Your task to perform on an android device: open app "McDonald's" Image 0: 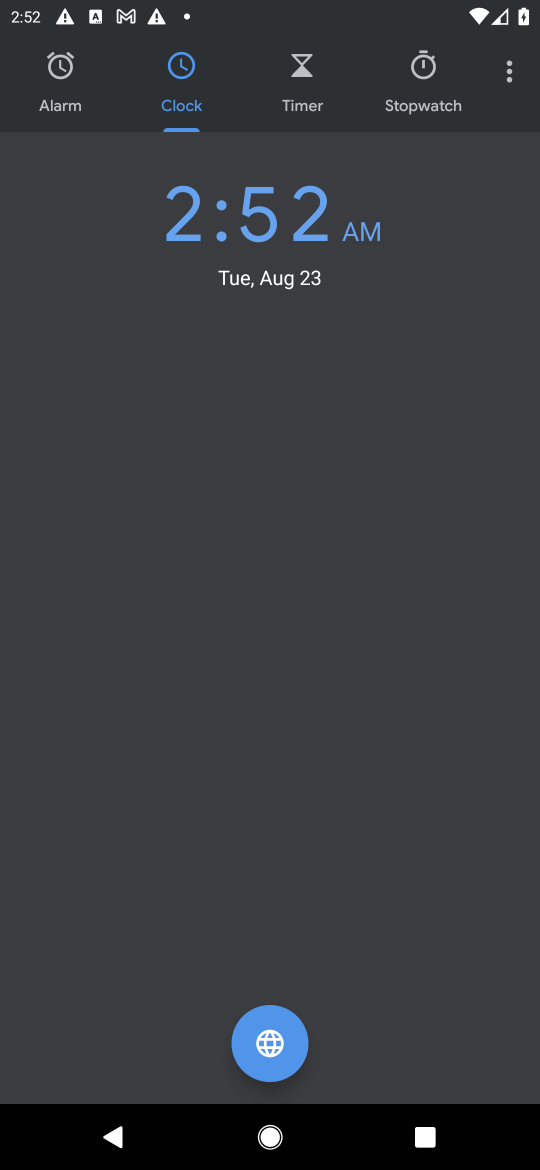
Step 0: press home button
Your task to perform on an android device: open app "McDonald's" Image 1: 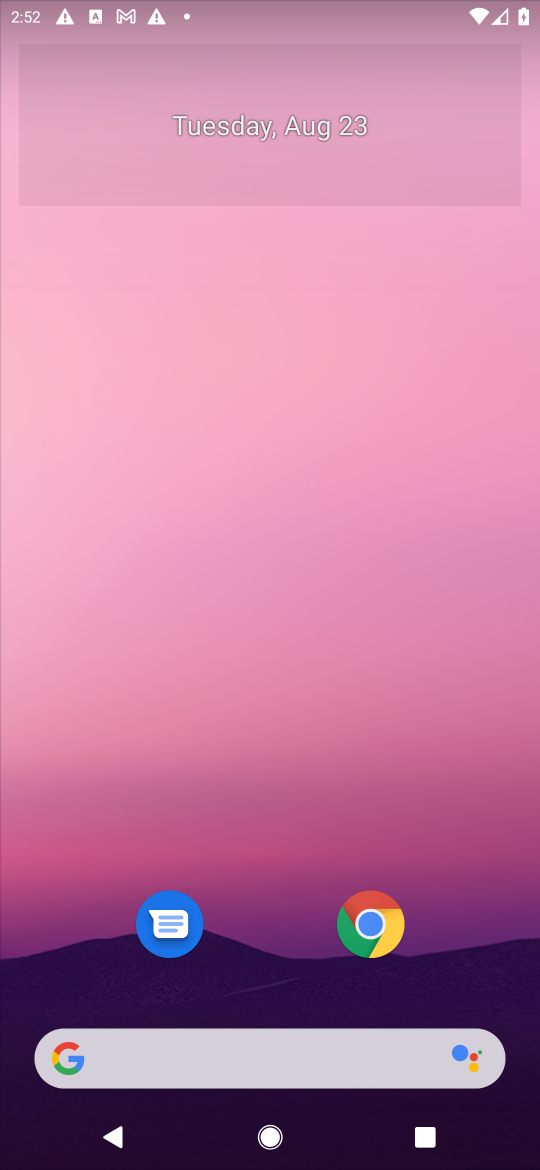
Step 1: drag from (447, 730) to (430, 85)
Your task to perform on an android device: open app "McDonald's" Image 2: 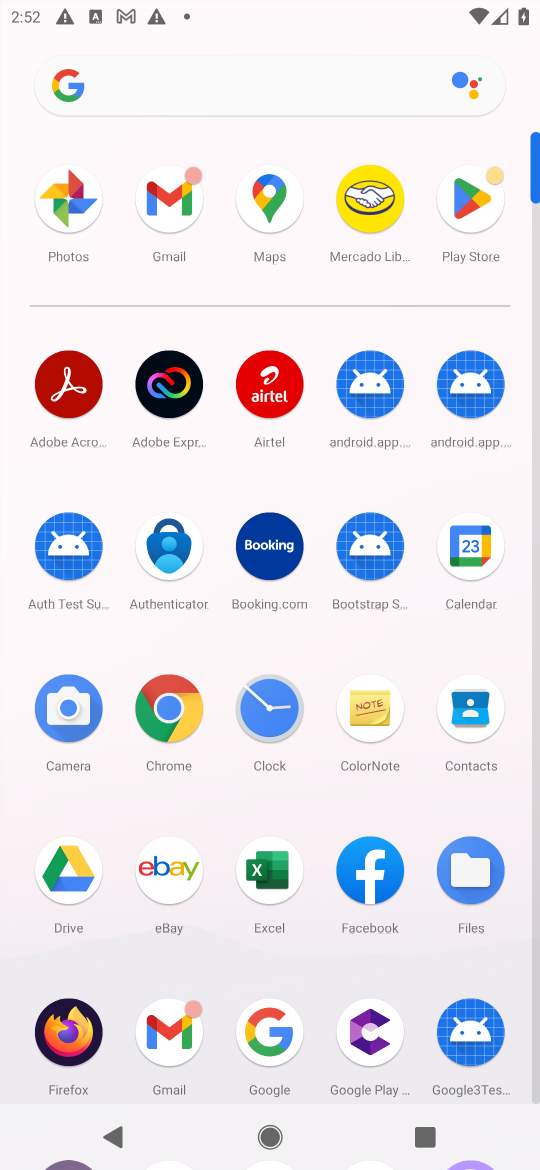
Step 2: click (460, 208)
Your task to perform on an android device: open app "McDonald's" Image 3: 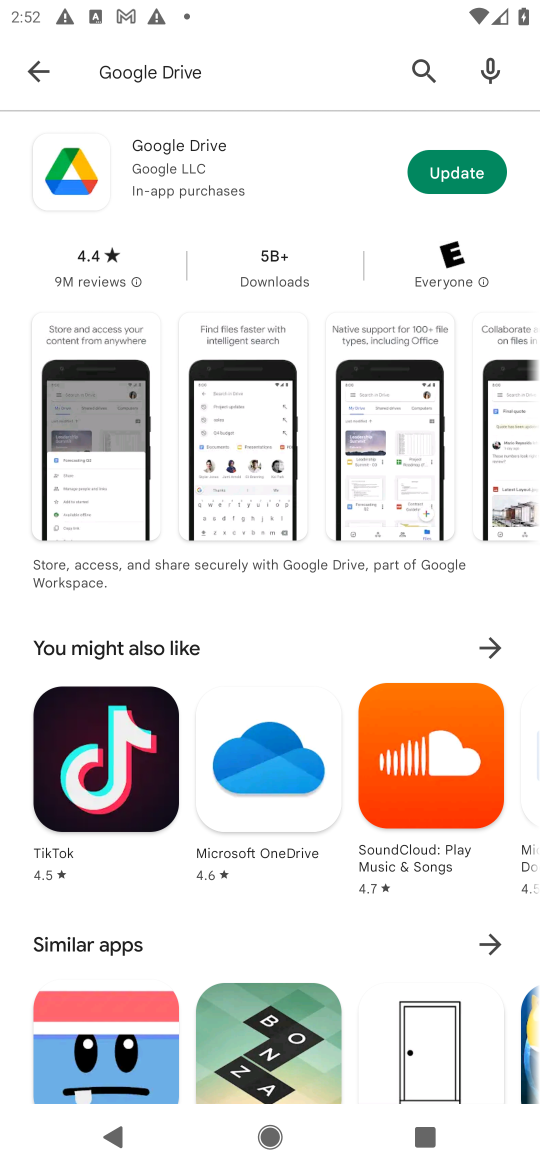
Step 3: press back button
Your task to perform on an android device: open app "McDonald's" Image 4: 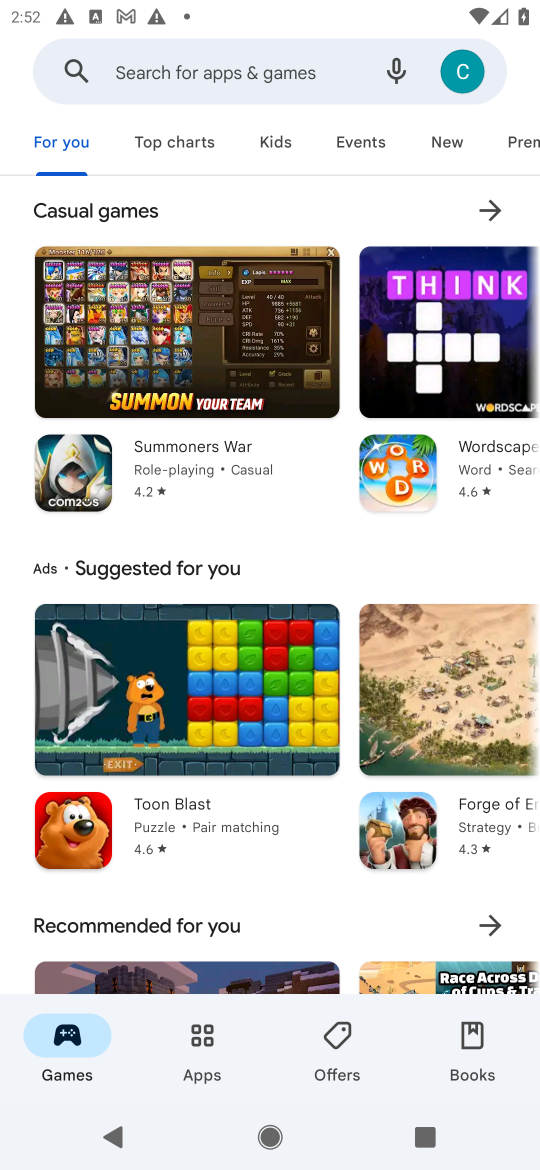
Step 4: click (275, 67)
Your task to perform on an android device: open app "McDonald's" Image 5: 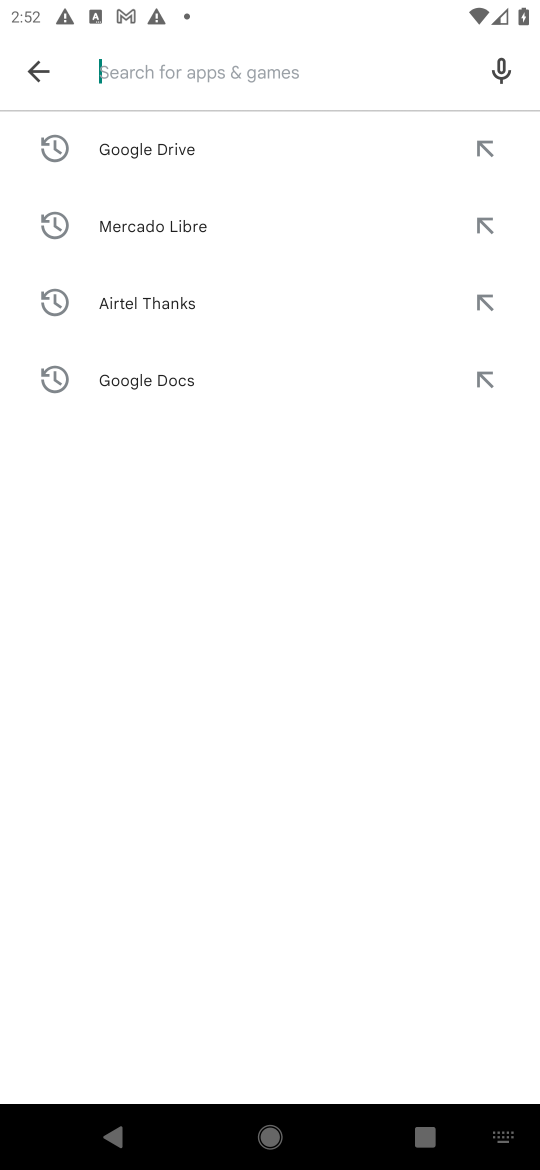
Step 5: type "mcdonalds"
Your task to perform on an android device: open app "McDonald's" Image 6: 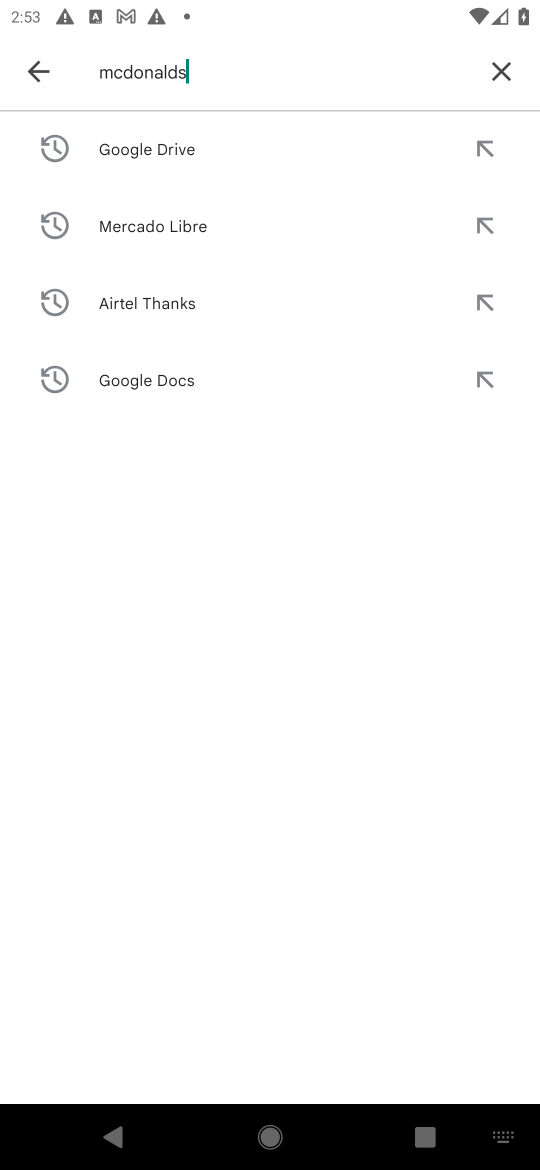
Step 6: press enter
Your task to perform on an android device: open app "McDonald's" Image 7: 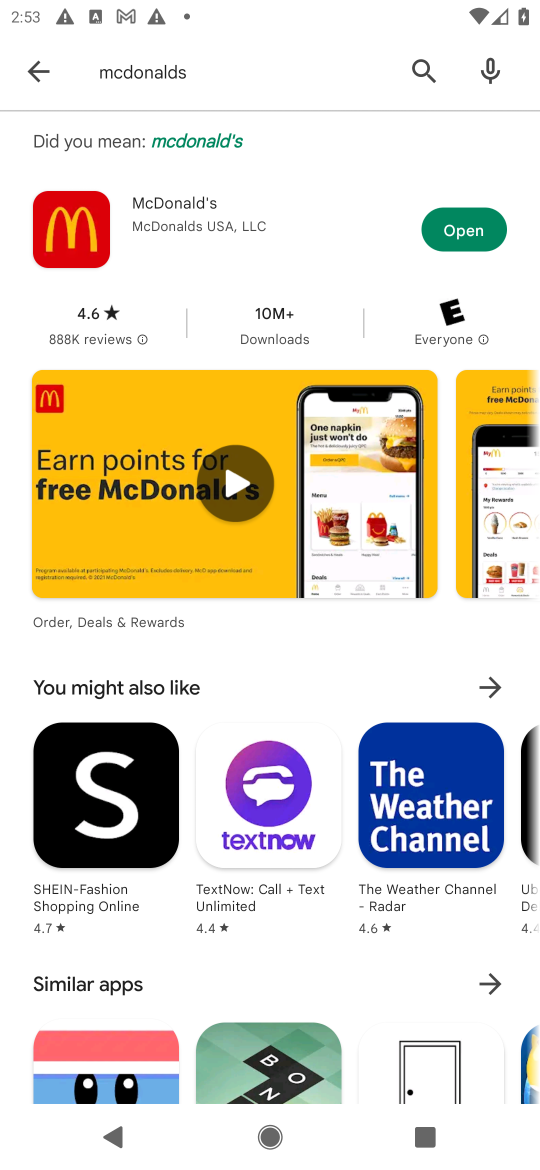
Step 7: click (468, 226)
Your task to perform on an android device: open app "McDonald's" Image 8: 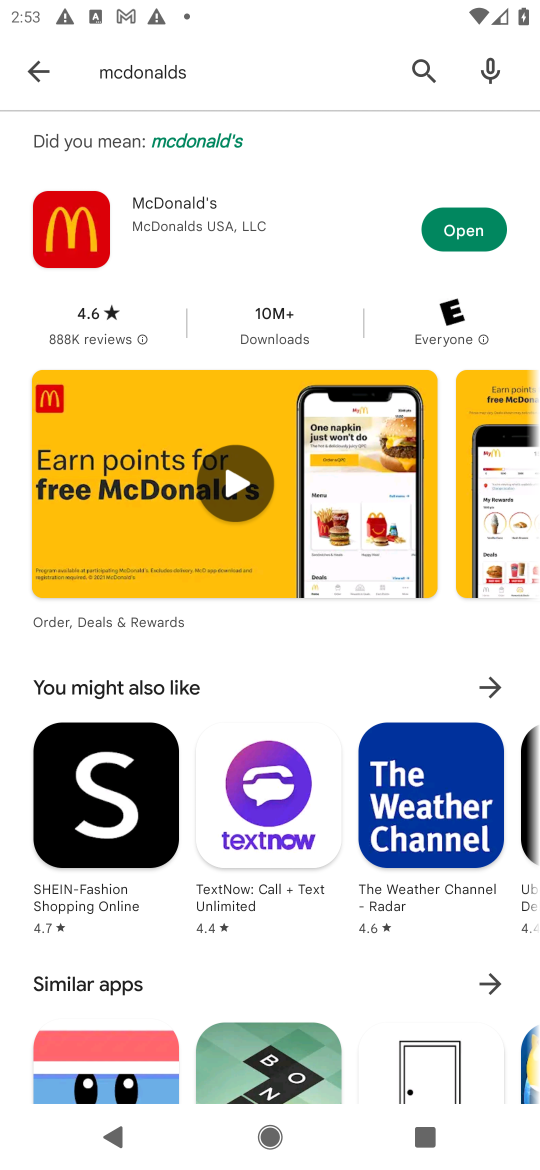
Step 8: click (459, 228)
Your task to perform on an android device: open app "McDonald's" Image 9: 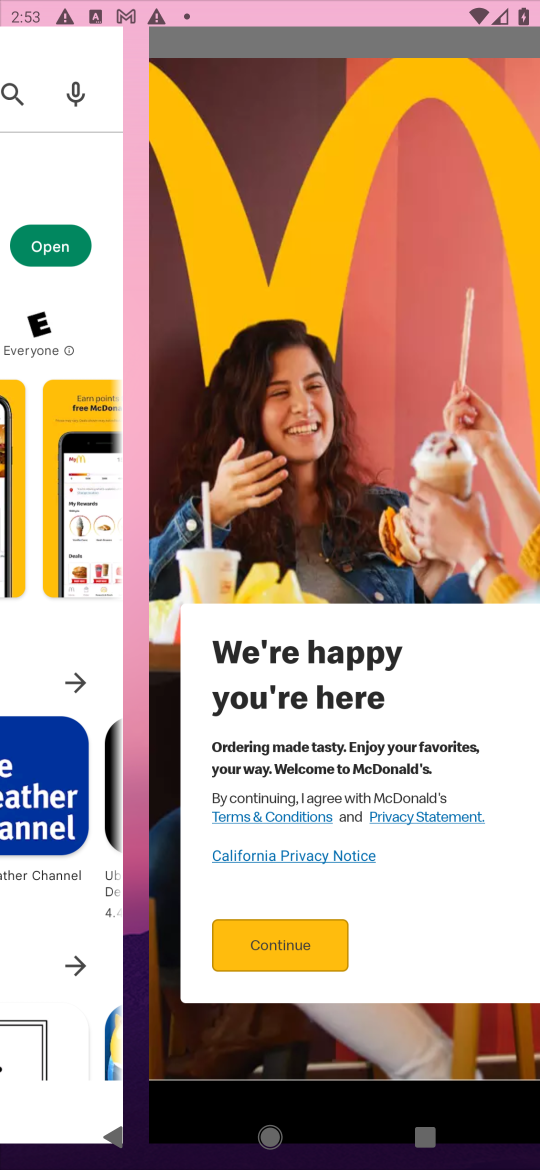
Step 9: click (464, 235)
Your task to perform on an android device: open app "McDonald's" Image 10: 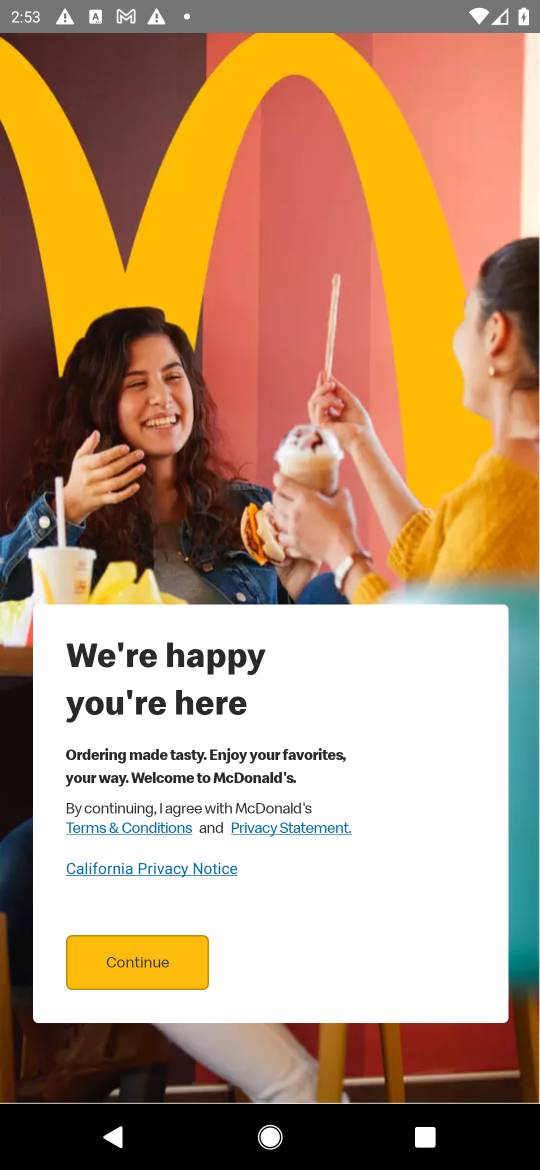
Step 10: task complete